Your task to perform on an android device: What's the weather going to be this weekend? Image 0: 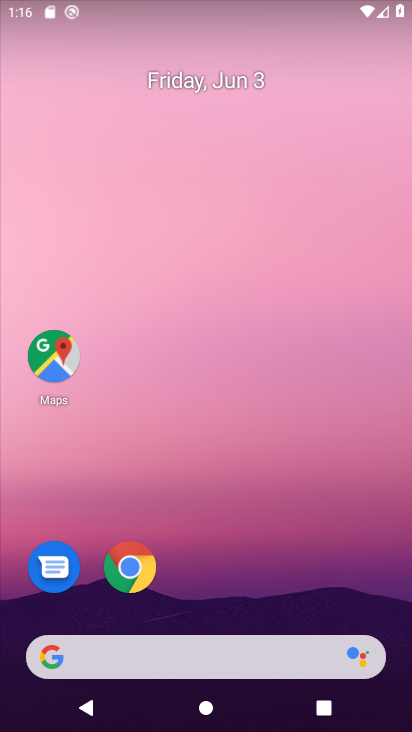
Step 0: drag from (218, 585) to (246, 315)
Your task to perform on an android device: What's the weather going to be this weekend? Image 1: 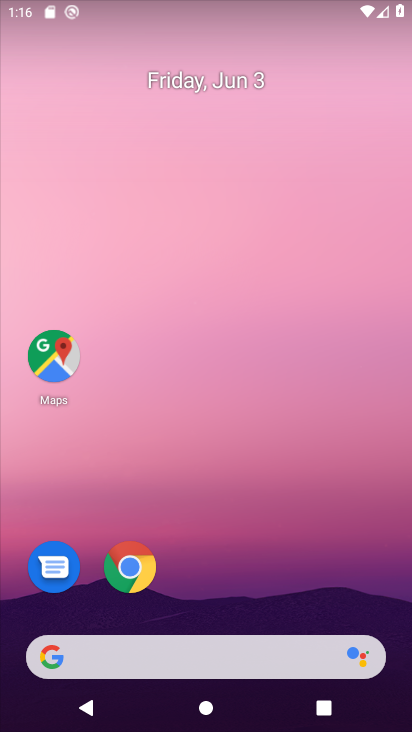
Step 1: click (131, 569)
Your task to perform on an android device: What's the weather going to be this weekend? Image 2: 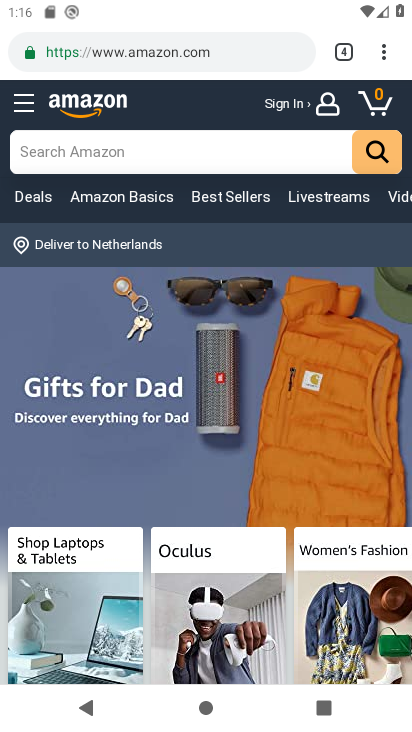
Step 2: click (390, 51)
Your task to perform on an android device: What's the weather going to be this weekend? Image 3: 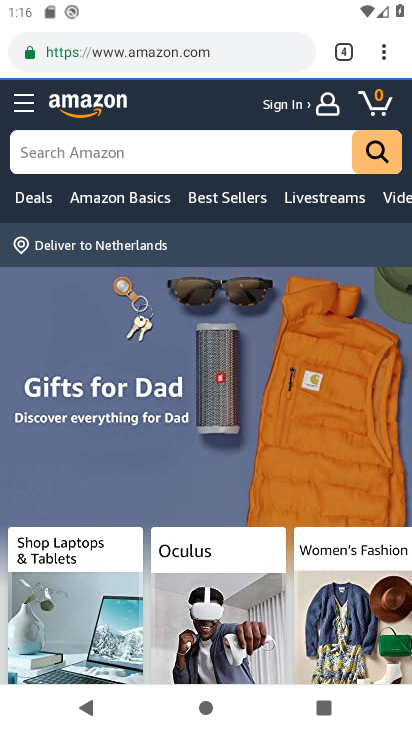
Step 3: click (381, 42)
Your task to perform on an android device: What's the weather going to be this weekend? Image 4: 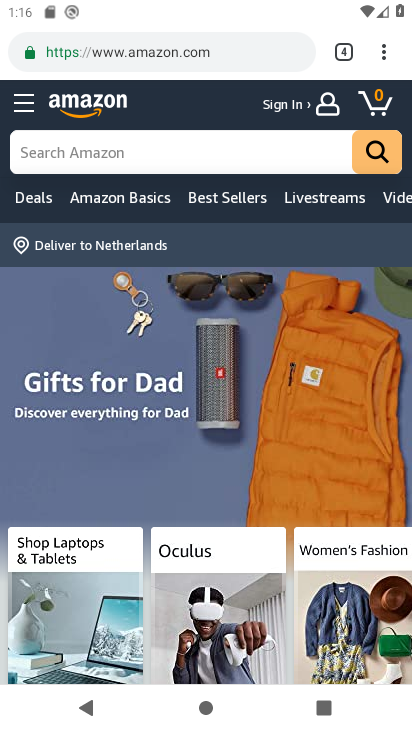
Step 4: click (379, 49)
Your task to perform on an android device: What's the weather going to be this weekend? Image 5: 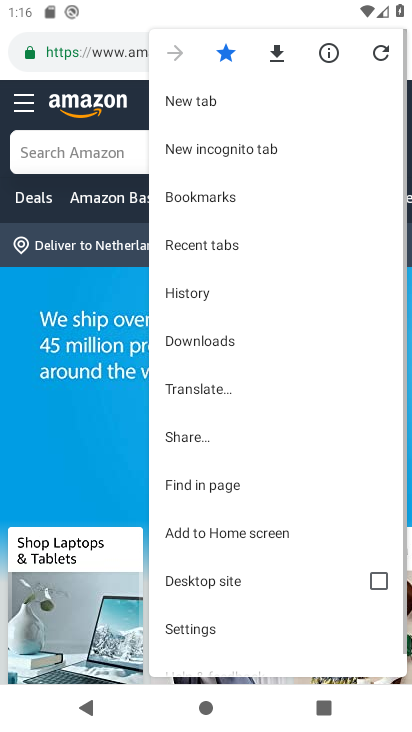
Step 5: click (221, 99)
Your task to perform on an android device: What's the weather going to be this weekend? Image 6: 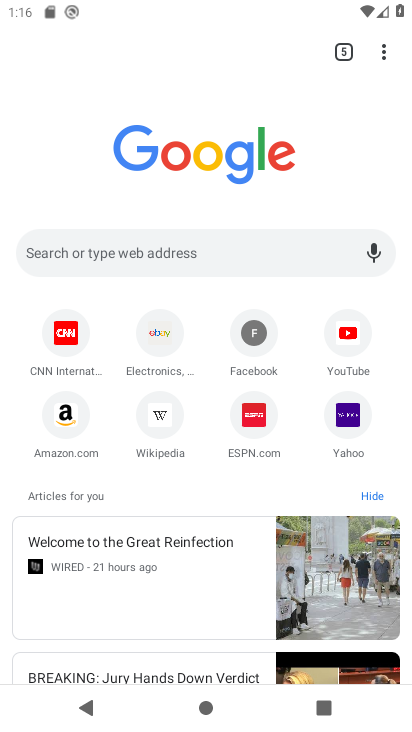
Step 6: click (193, 247)
Your task to perform on an android device: What's the weather going to be this weekend? Image 7: 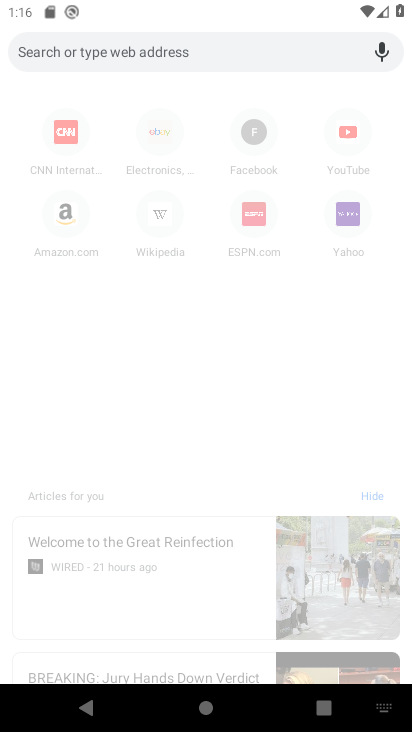
Step 7: type "What's the weather going to be this weekend?"
Your task to perform on an android device: What's the weather going to be this weekend? Image 8: 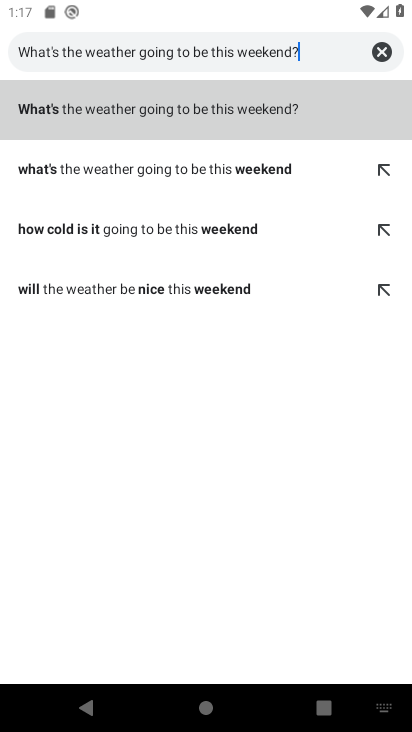
Step 8: click (198, 99)
Your task to perform on an android device: What's the weather going to be this weekend? Image 9: 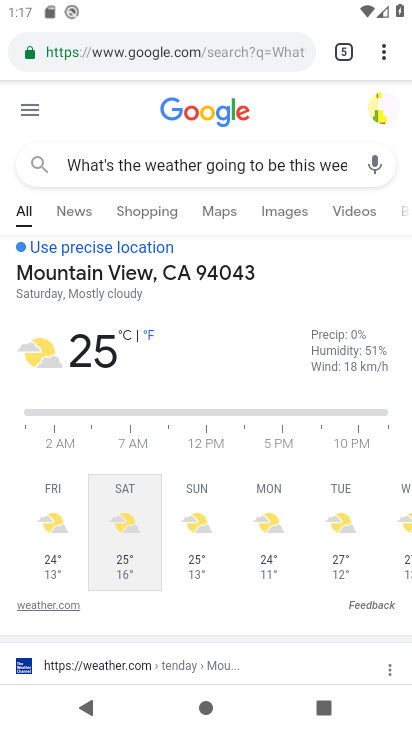
Step 9: task complete